Your task to perform on an android device: Open maps Image 0: 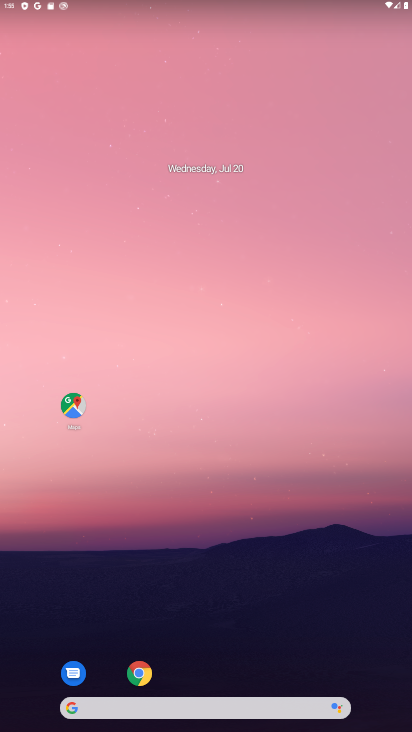
Step 0: drag from (210, 642) to (328, 21)
Your task to perform on an android device: Open maps Image 1: 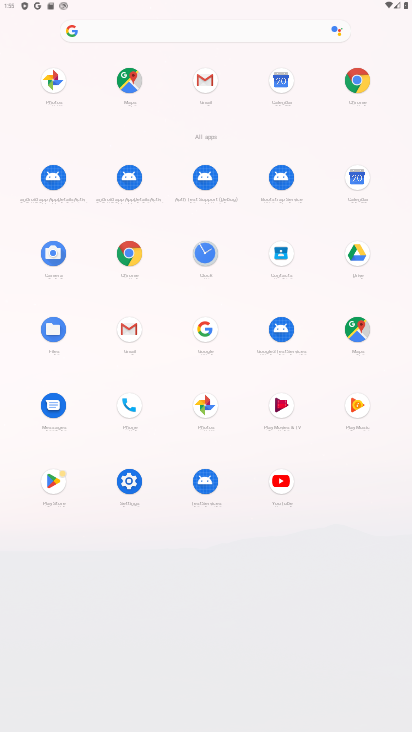
Step 1: click (349, 332)
Your task to perform on an android device: Open maps Image 2: 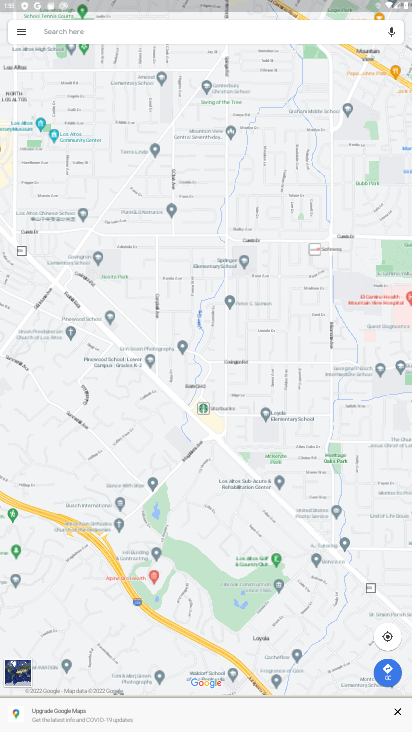
Step 2: task complete